Your task to perform on an android device: turn pop-ups off in chrome Image 0: 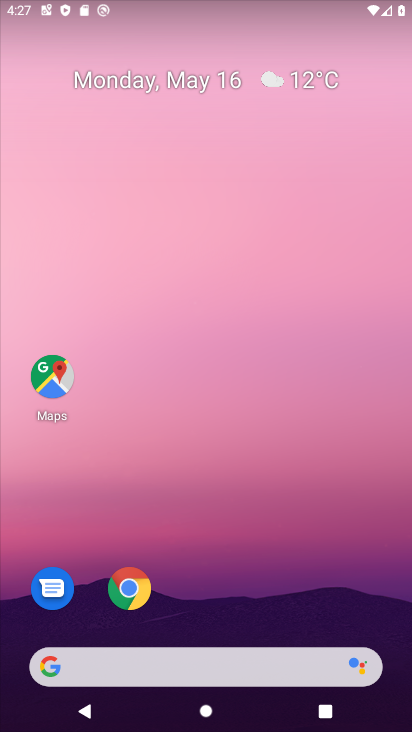
Step 0: click (115, 598)
Your task to perform on an android device: turn pop-ups off in chrome Image 1: 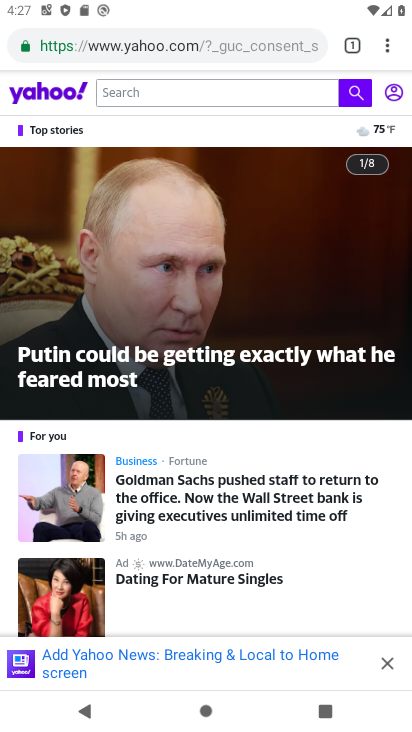
Step 1: drag from (388, 43) to (243, 603)
Your task to perform on an android device: turn pop-ups off in chrome Image 2: 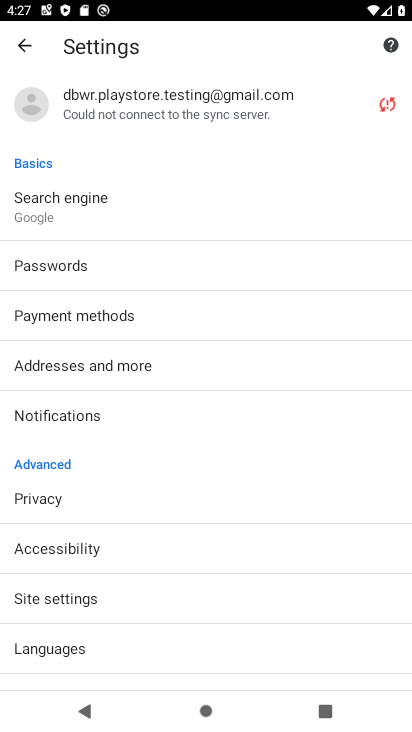
Step 2: click (102, 603)
Your task to perform on an android device: turn pop-ups off in chrome Image 3: 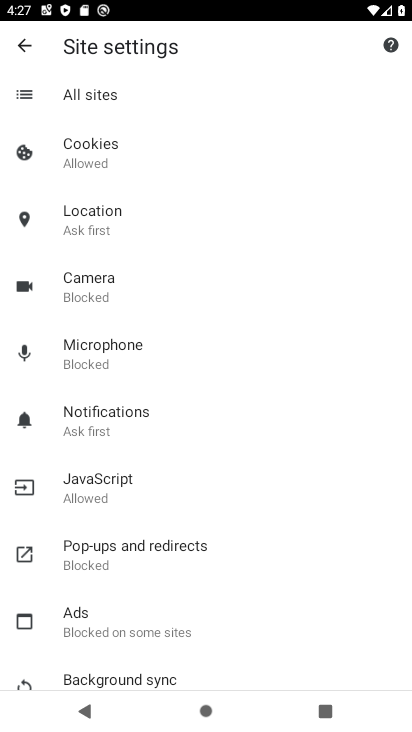
Step 3: click (139, 558)
Your task to perform on an android device: turn pop-ups off in chrome Image 4: 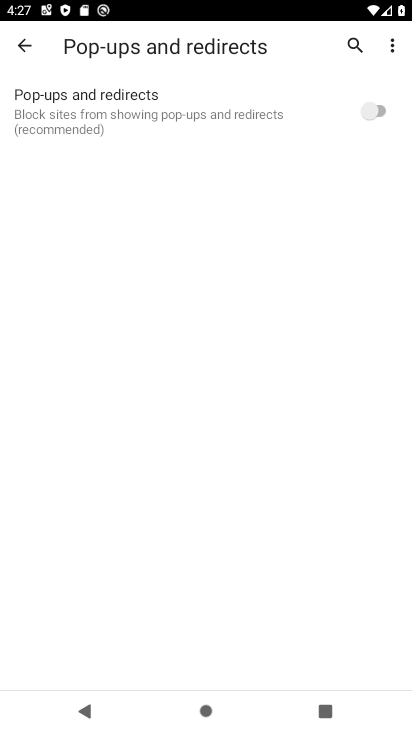
Step 4: task complete